Your task to perform on an android device: manage bookmarks in the chrome app Image 0: 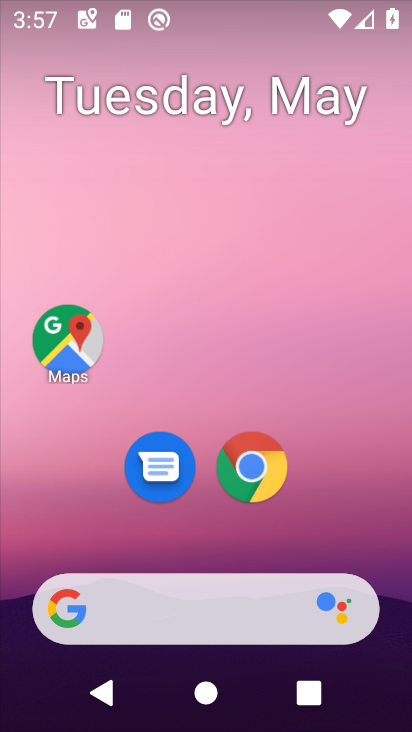
Step 0: click (245, 472)
Your task to perform on an android device: manage bookmarks in the chrome app Image 1: 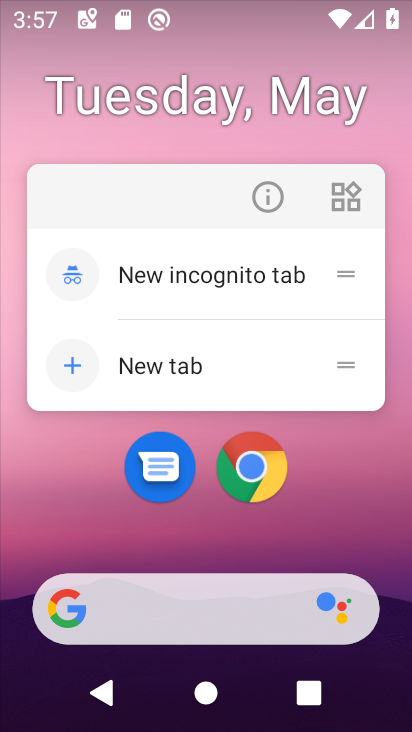
Step 1: click (246, 463)
Your task to perform on an android device: manage bookmarks in the chrome app Image 2: 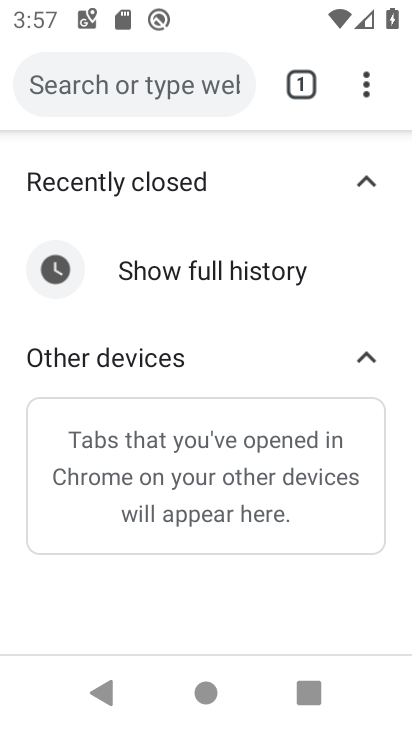
Step 2: click (371, 96)
Your task to perform on an android device: manage bookmarks in the chrome app Image 3: 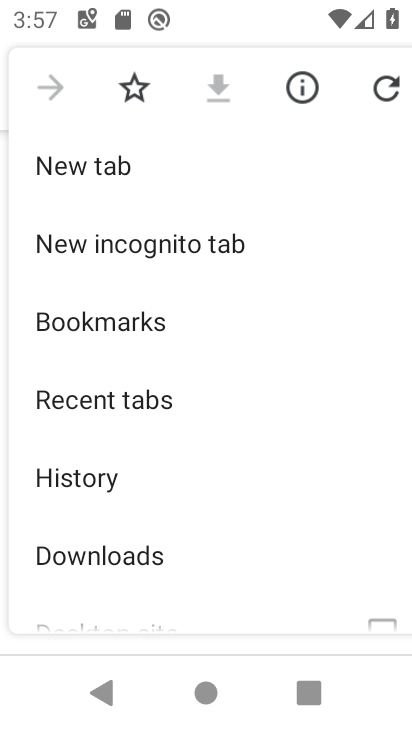
Step 3: click (122, 331)
Your task to perform on an android device: manage bookmarks in the chrome app Image 4: 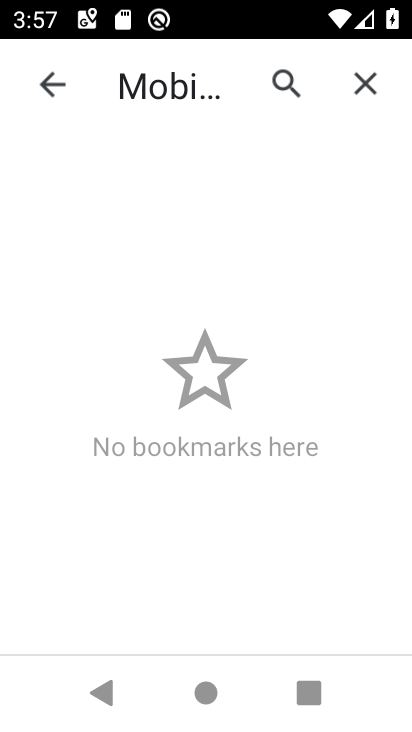
Step 4: task complete